Your task to perform on an android device: turn on data saver in the chrome app Image 0: 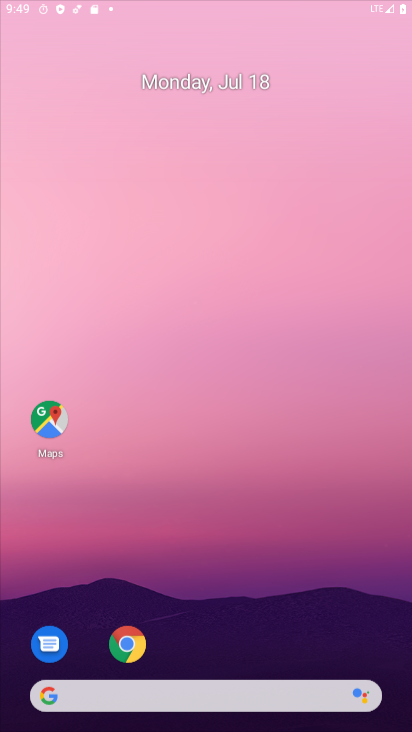
Step 0: press home button
Your task to perform on an android device: turn on data saver in the chrome app Image 1: 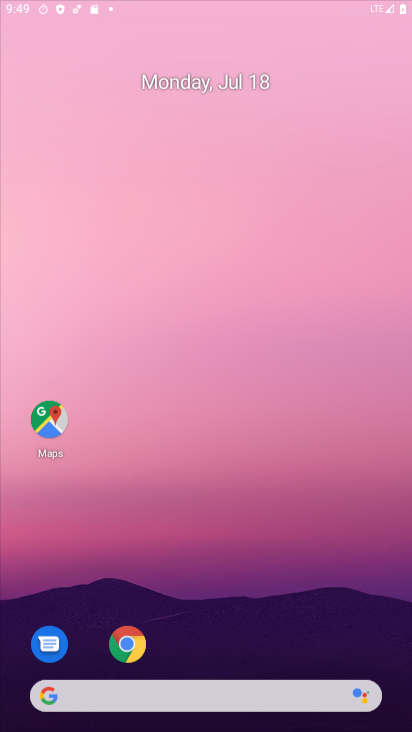
Step 1: click (364, 711)
Your task to perform on an android device: turn on data saver in the chrome app Image 2: 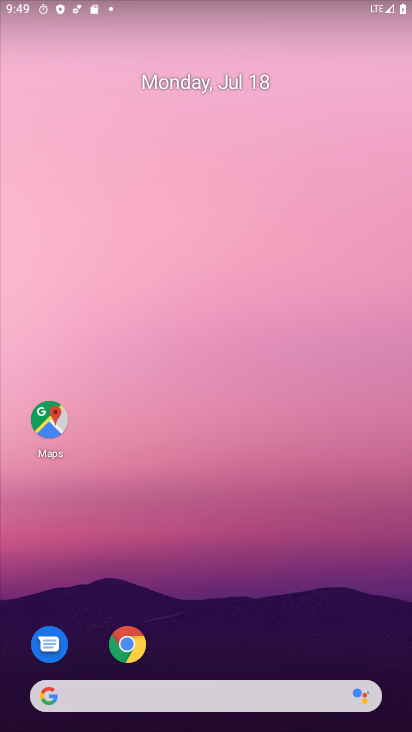
Step 2: click (125, 640)
Your task to perform on an android device: turn on data saver in the chrome app Image 3: 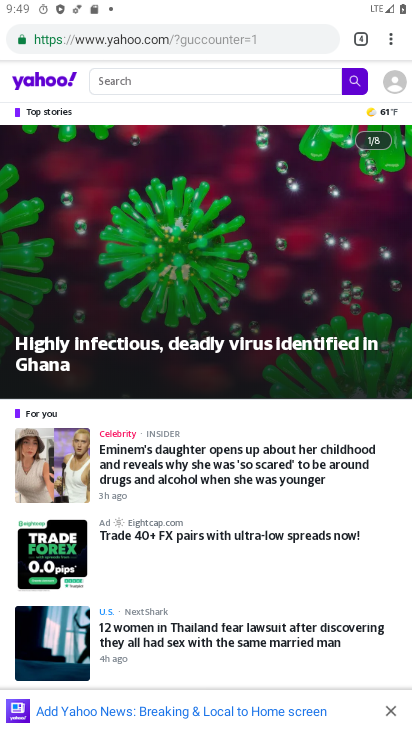
Step 3: click (389, 34)
Your task to perform on an android device: turn on data saver in the chrome app Image 4: 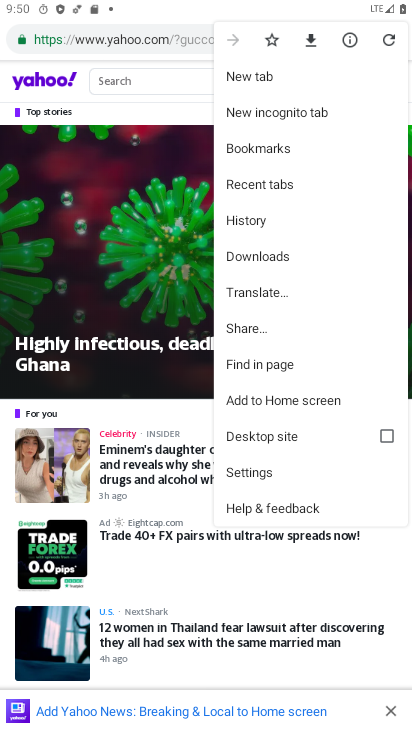
Step 4: click (275, 468)
Your task to perform on an android device: turn on data saver in the chrome app Image 5: 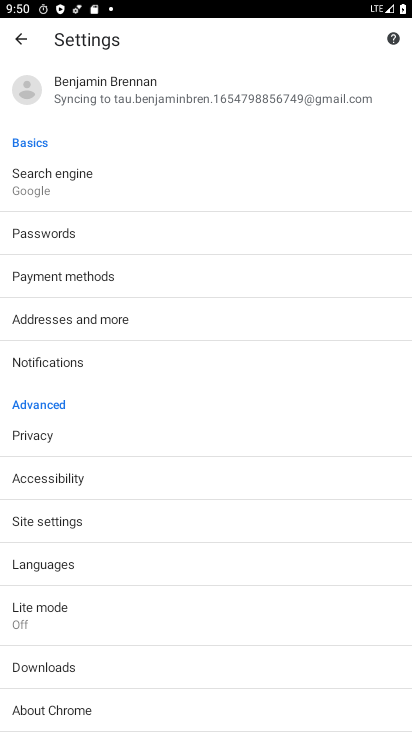
Step 5: click (57, 615)
Your task to perform on an android device: turn on data saver in the chrome app Image 6: 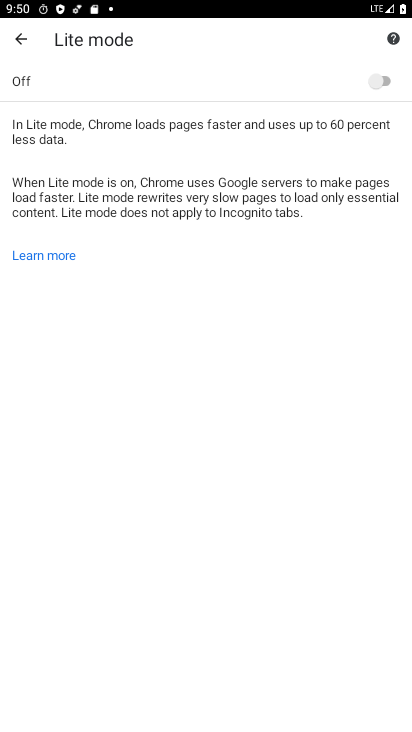
Step 6: click (382, 77)
Your task to perform on an android device: turn on data saver in the chrome app Image 7: 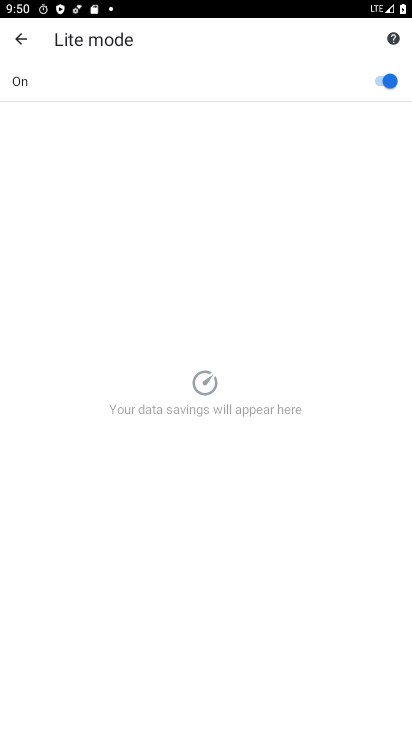
Step 7: task complete